Your task to perform on an android device: Turn off the flashlight Image 0: 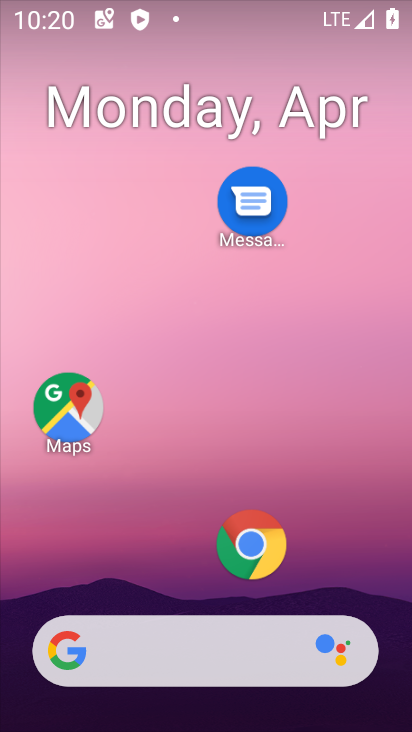
Step 0: drag from (195, 587) to (228, 39)
Your task to perform on an android device: Turn off the flashlight Image 1: 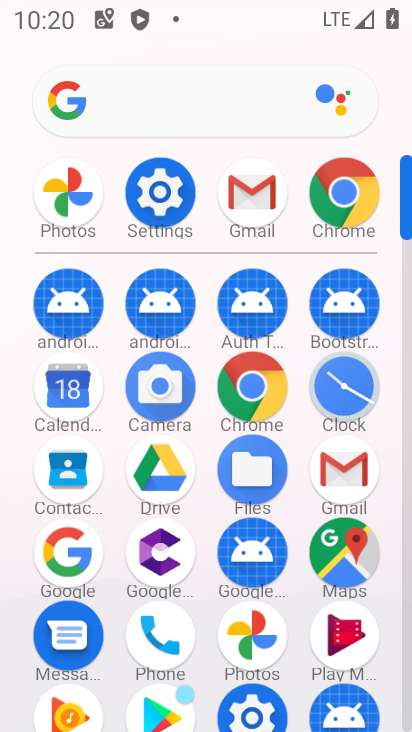
Step 1: click (157, 191)
Your task to perform on an android device: Turn off the flashlight Image 2: 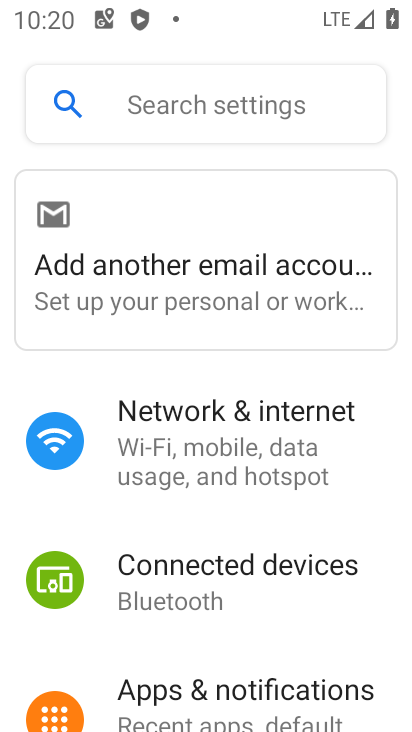
Step 2: click (201, 102)
Your task to perform on an android device: Turn off the flashlight Image 3: 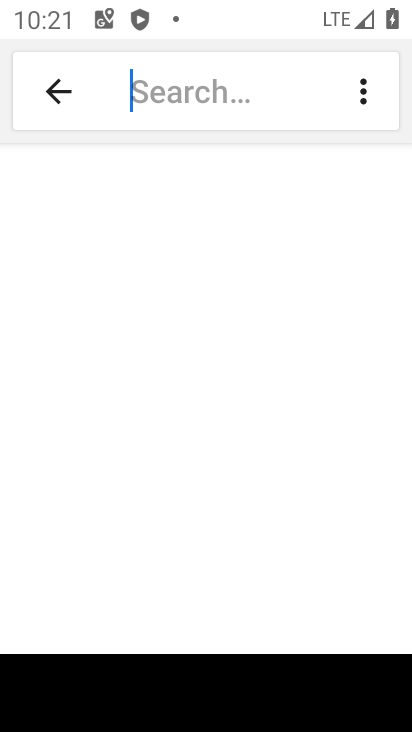
Step 3: type "flashlight"
Your task to perform on an android device: Turn off the flashlight Image 4: 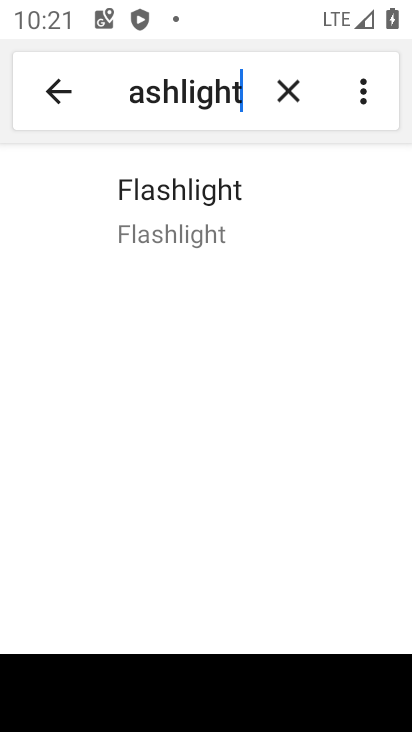
Step 4: click (164, 210)
Your task to perform on an android device: Turn off the flashlight Image 5: 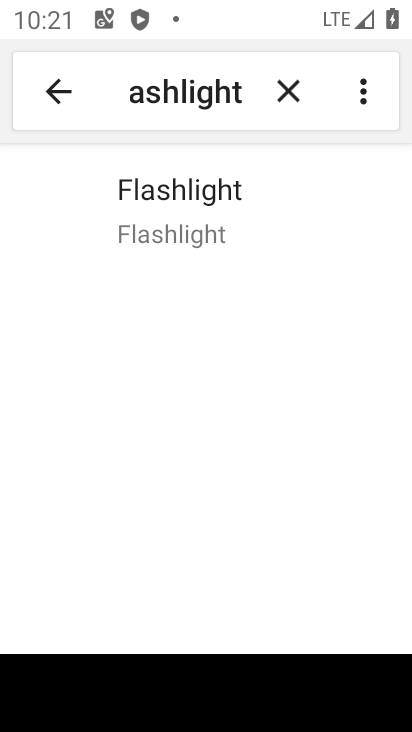
Step 5: click (164, 210)
Your task to perform on an android device: Turn off the flashlight Image 6: 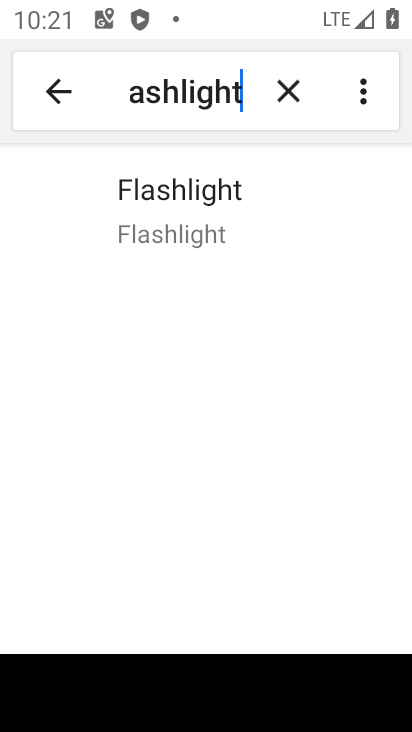
Step 6: task complete